Your task to perform on an android device: set the timer Image 0: 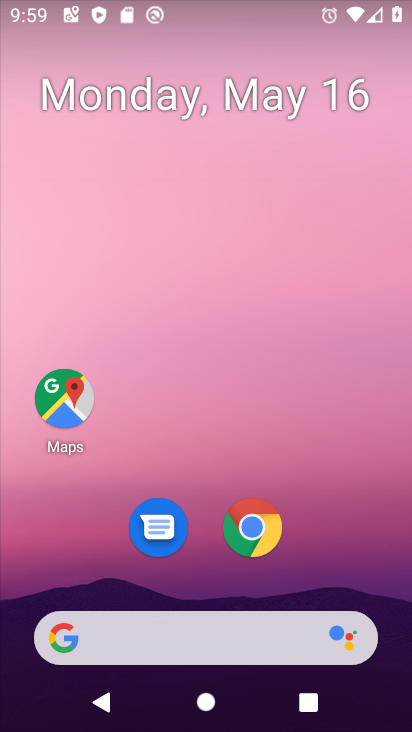
Step 0: drag from (342, 588) to (333, 4)
Your task to perform on an android device: set the timer Image 1: 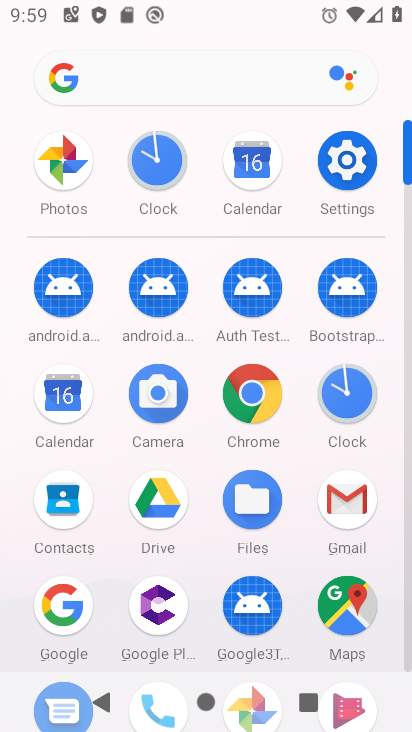
Step 1: click (143, 161)
Your task to perform on an android device: set the timer Image 2: 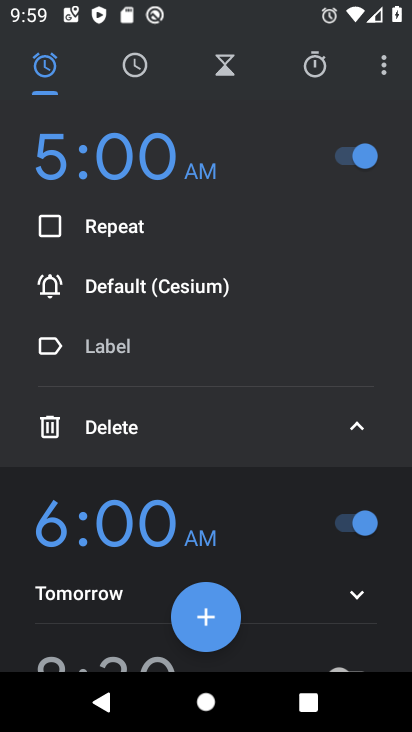
Step 2: click (226, 72)
Your task to perform on an android device: set the timer Image 3: 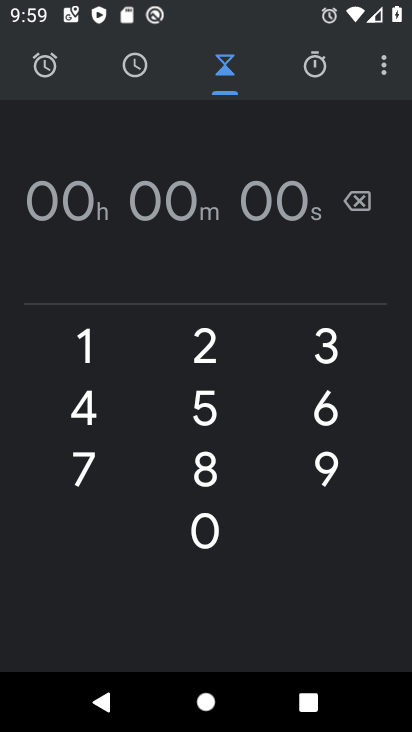
Step 3: click (88, 410)
Your task to perform on an android device: set the timer Image 4: 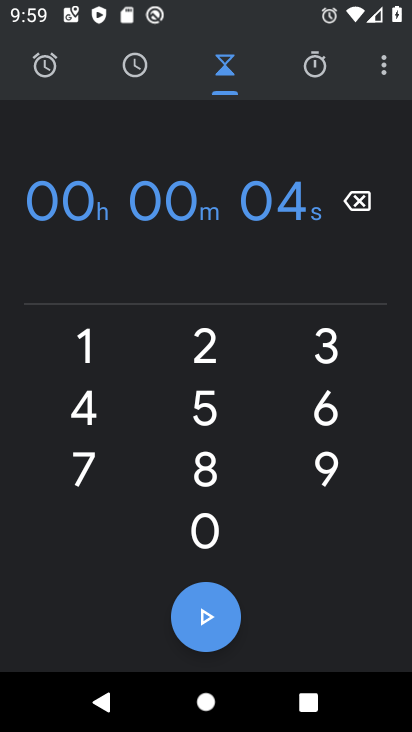
Step 4: click (214, 532)
Your task to perform on an android device: set the timer Image 5: 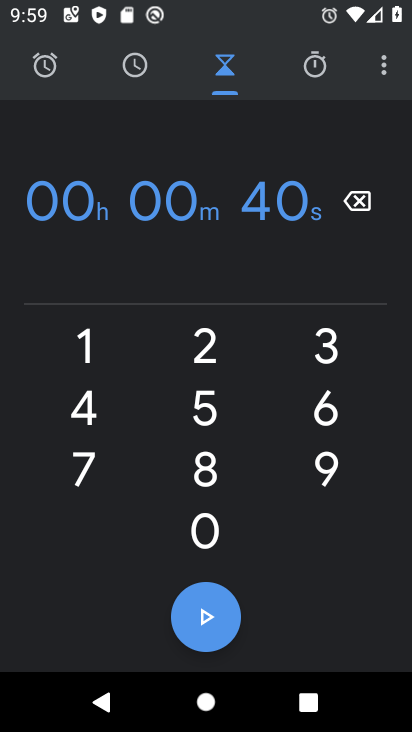
Step 5: click (202, 611)
Your task to perform on an android device: set the timer Image 6: 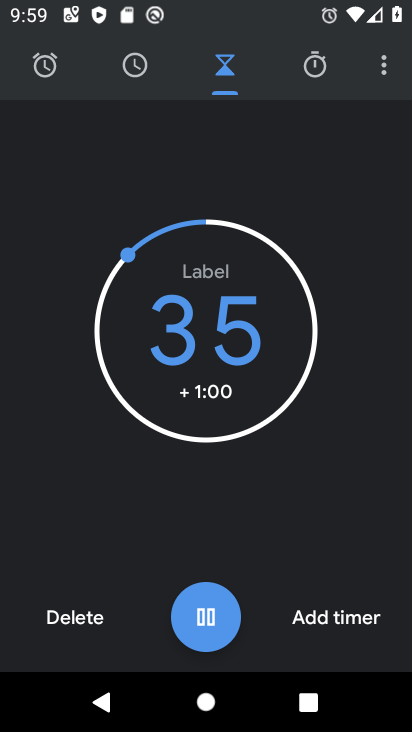
Step 6: task complete